Your task to perform on an android device: Go to Google maps Image 0: 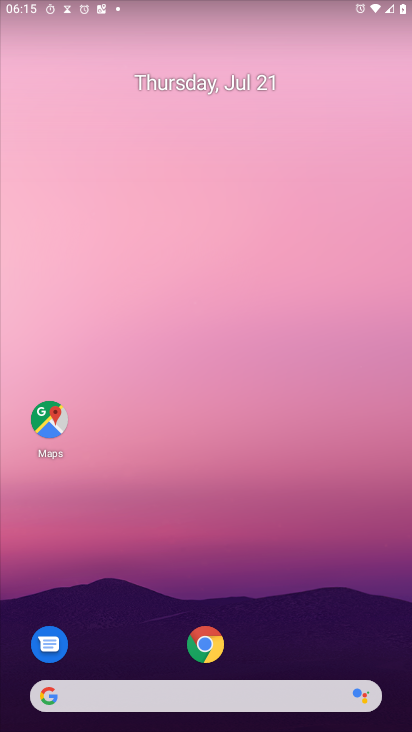
Step 0: click (49, 414)
Your task to perform on an android device: Go to Google maps Image 1: 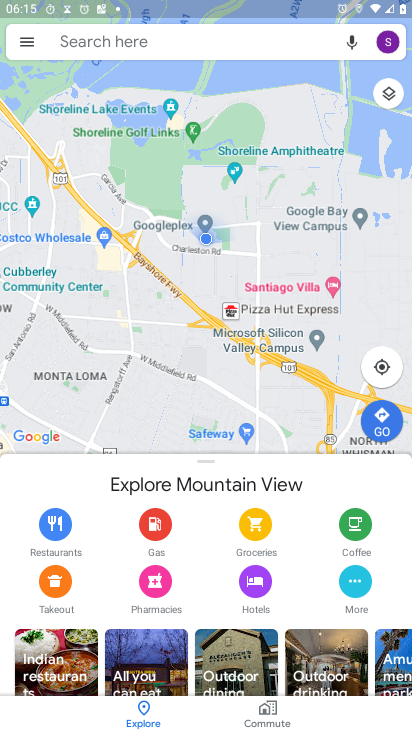
Step 1: task complete